Your task to perform on an android device: open the mobile data screen to see how much data has been used Image 0: 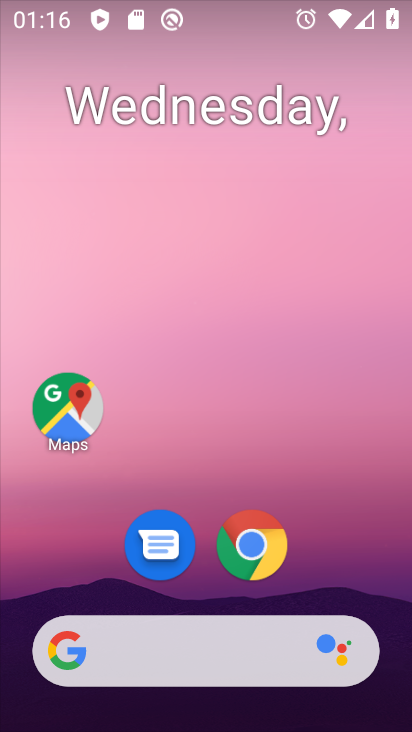
Step 0: drag from (331, 484) to (263, 181)
Your task to perform on an android device: open the mobile data screen to see how much data has been used Image 1: 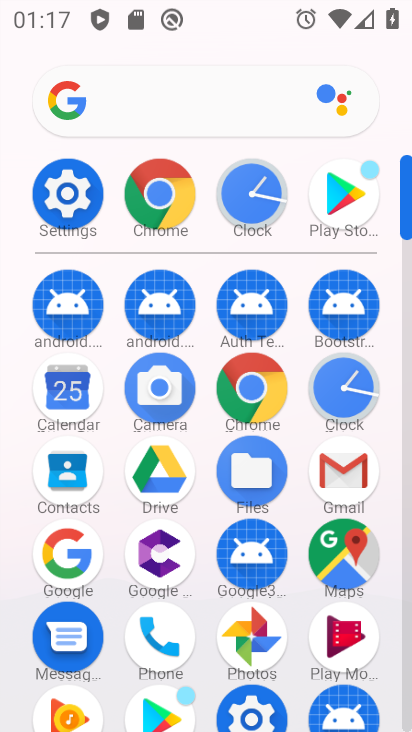
Step 1: click (82, 195)
Your task to perform on an android device: open the mobile data screen to see how much data has been used Image 2: 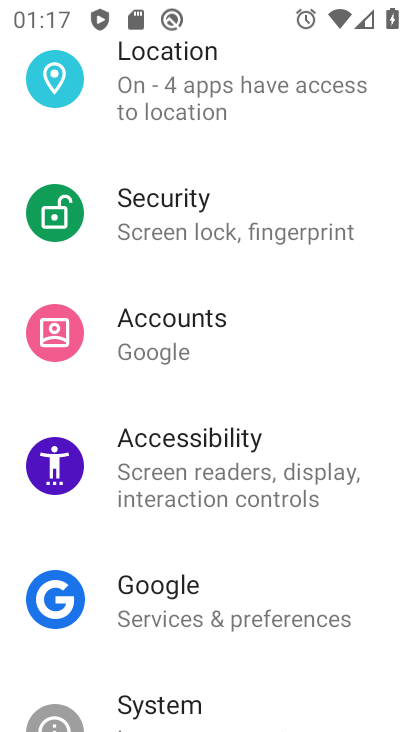
Step 2: drag from (181, 170) to (255, 644)
Your task to perform on an android device: open the mobile data screen to see how much data has been used Image 3: 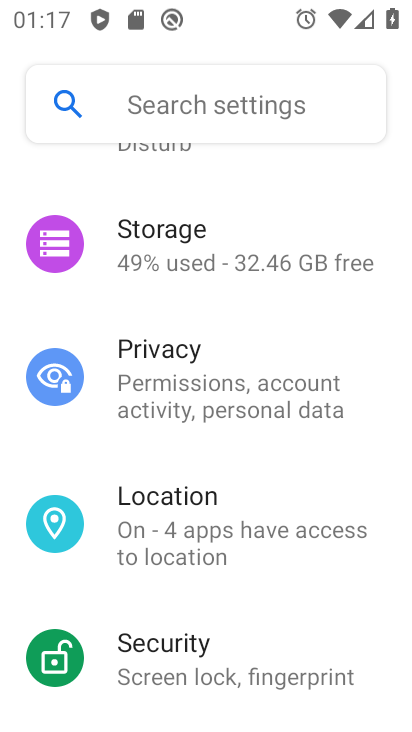
Step 3: drag from (216, 231) to (190, 712)
Your task to perform on an android device: open the mobile data screen to see how much data has been used Image 4: 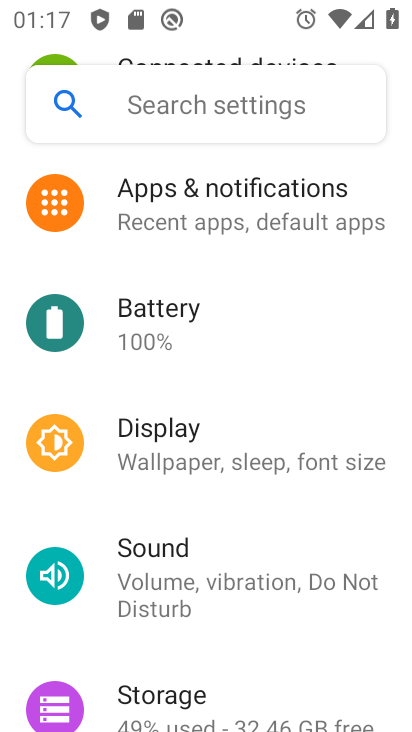
Step 4: drag from (228, 250) to (144, 687)
Your task to perform on an android device: open the mobile data screen to see how much data has been used Image 5: 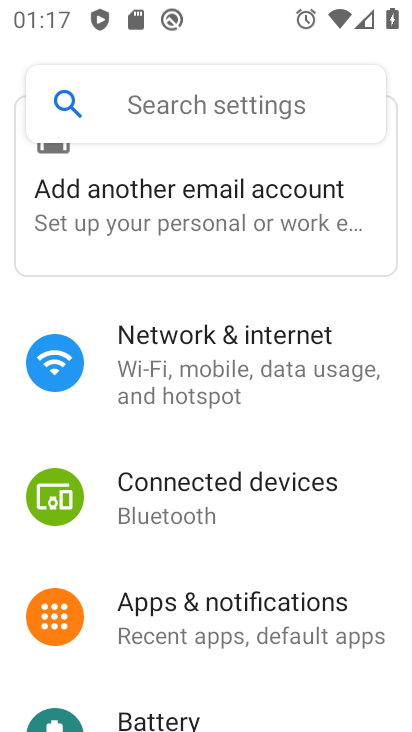
Step 5: click (204, 372)
Your task to perform on an android device: open the mobile data screen to see how much data has been used Image 6: 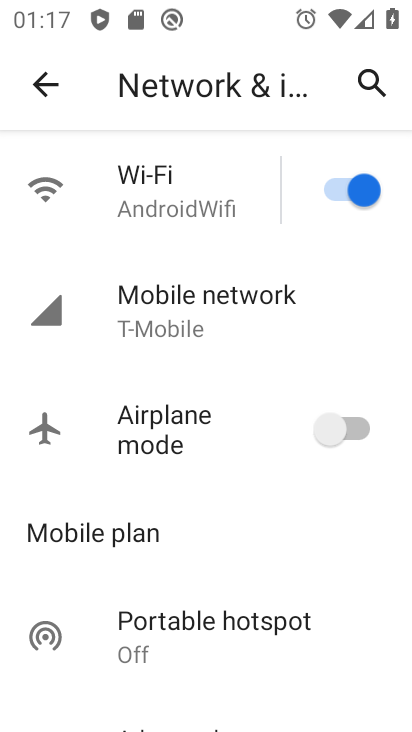
Step 6: click (196, 294)
Your task to perform on an android device: open the mobile data screen to see how much data has been used Image 7: 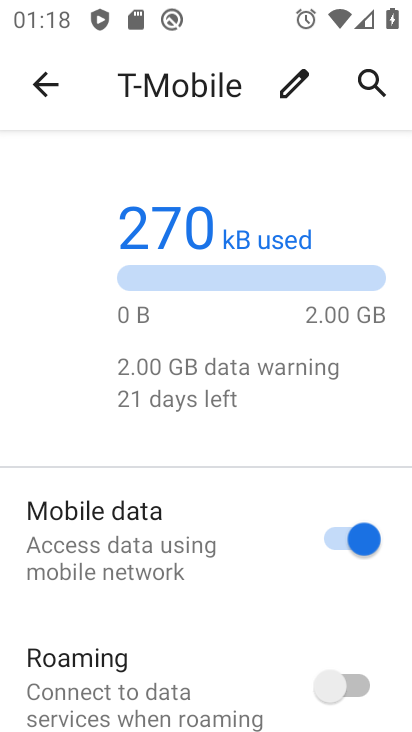
Step 7: task complete